Your task to perform on an android device: manage bookmarks in the chrome app Image 0: 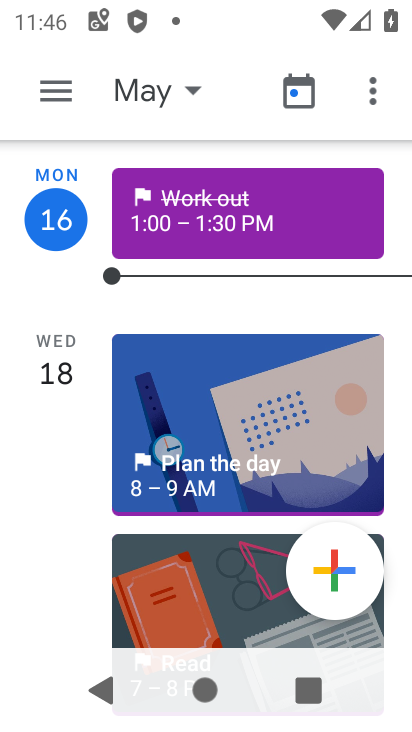
Step 0: press home button
Your task to perform on an android device: manage bookmarks in the chrome app Image 1: 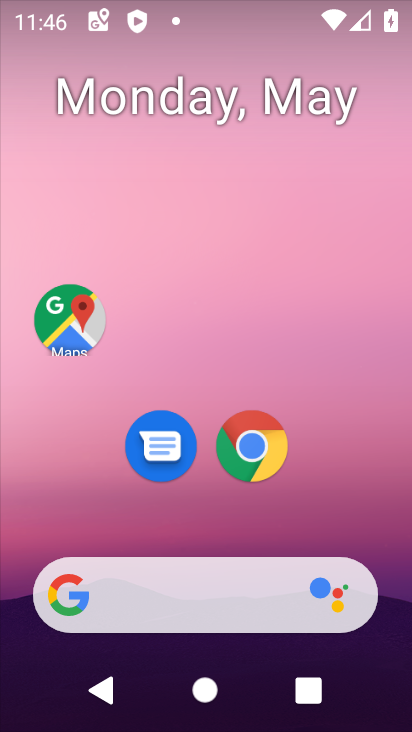
Step 1: drag from (269, 521) to (300, 175)
Your task to perform on an android device: manage bookmarks in the chrome app Image 2: 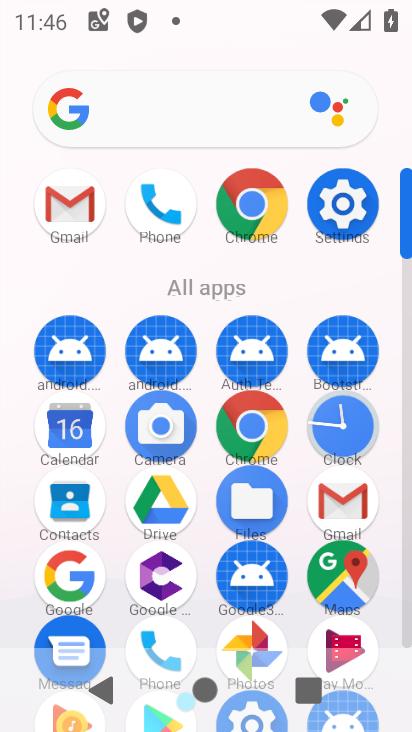
Step 2: click (355, 189)
Your task to perform on an android device: manage bookmarks in the chrome app Image 3: 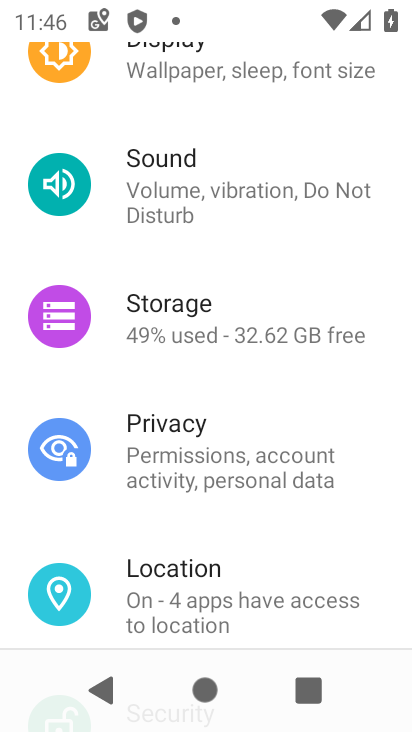
Step 3: press home button
Your task to perform on an android device: manage bookmarks in the chrome app Image 4: 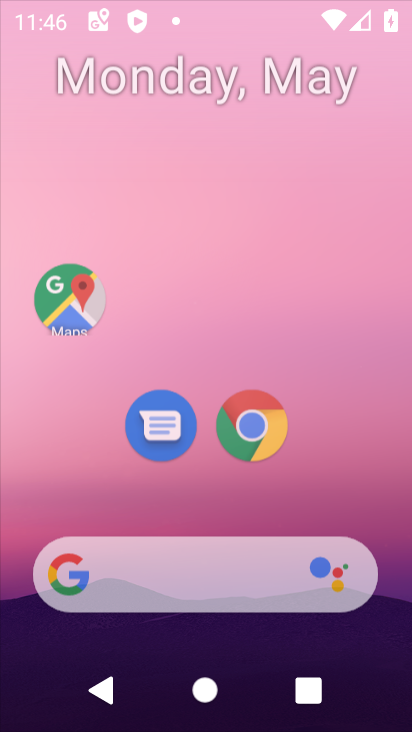
Step 4: press home button
Your task to perform on an android device: manage bookmarks in the chrome app Image 5: 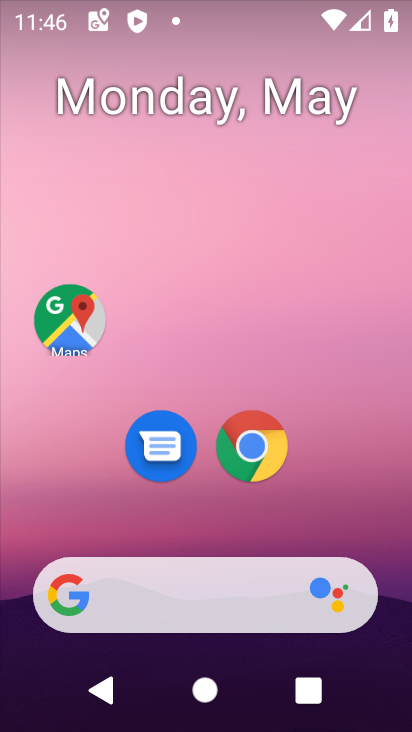
Step 5: click (242, 442)
Your task to perform on an android device: manage bookmarks in the chrome app Image 6: 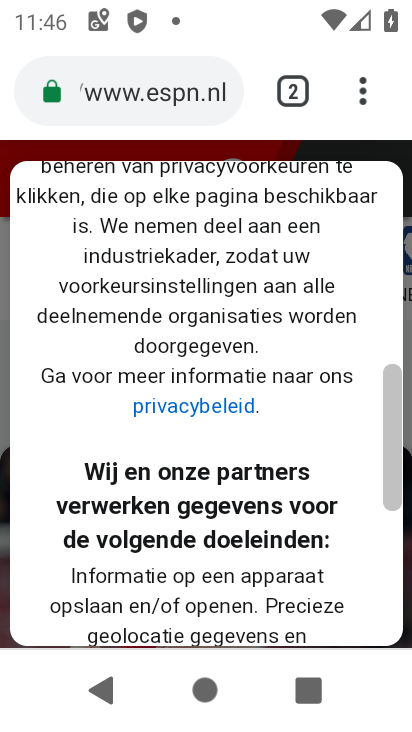
Step 6: click (346, 90)
Your task to perform on an android device: manage bookmarks in the chrome app Image 7: 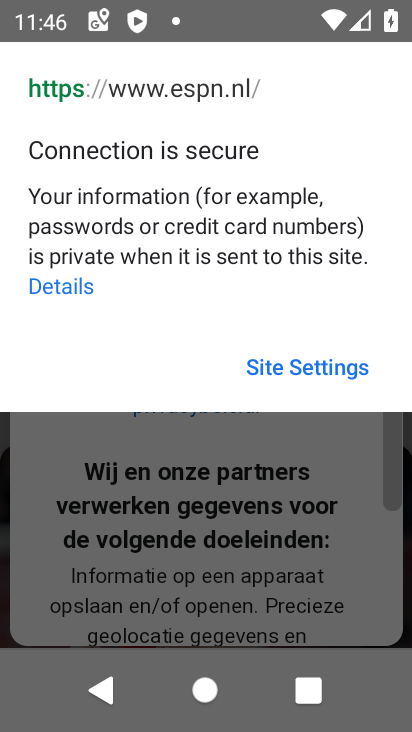
Step 7: press back button
Your task to perform on an android device: manage bookmarks in the chrome app Image 8: 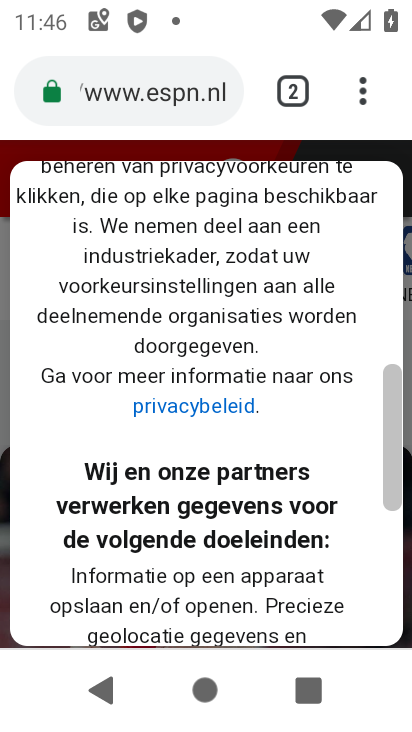
Step 8: click (355, 92)
Your task to perform on an android device: manage bookmarks in the chrome app Image 9: 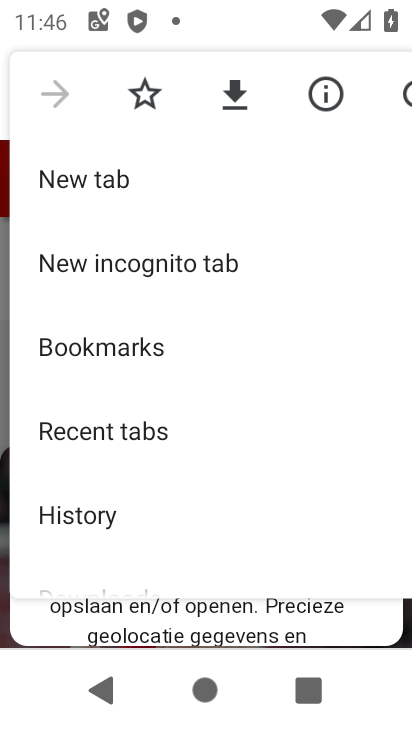
Step 9: drag from (166, 360) to (186, 272)
Your task to perform on an android device: manage bookmarks in the chrome app Image 10: 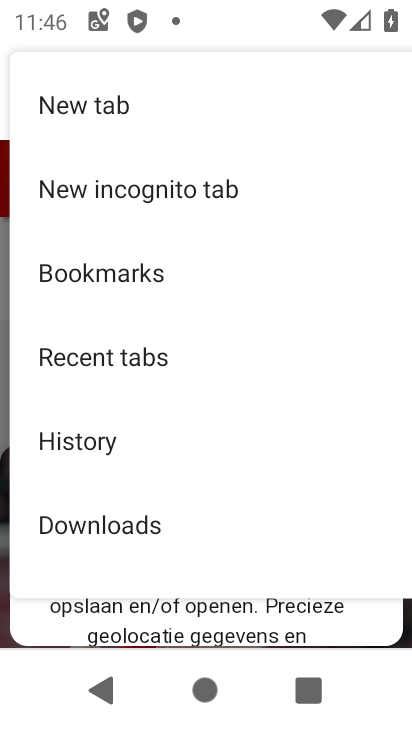
Step 10: click (186, 272)
Your task to perform on an android device: manage bookmarks in the chrome app Image 11: 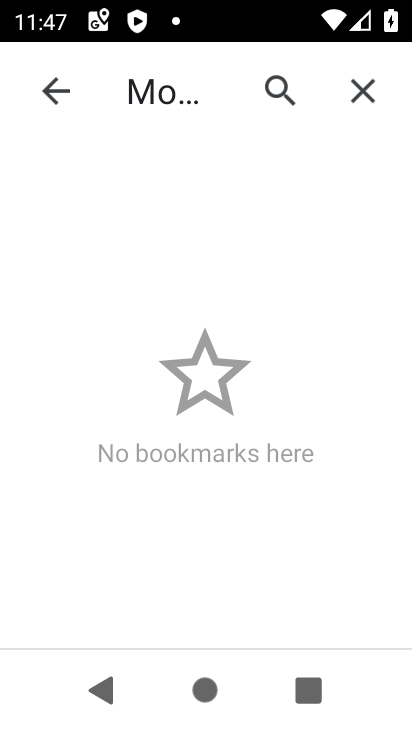
Step 11: task complete